Your task to perform on an android device: open wifi settings Image 0: 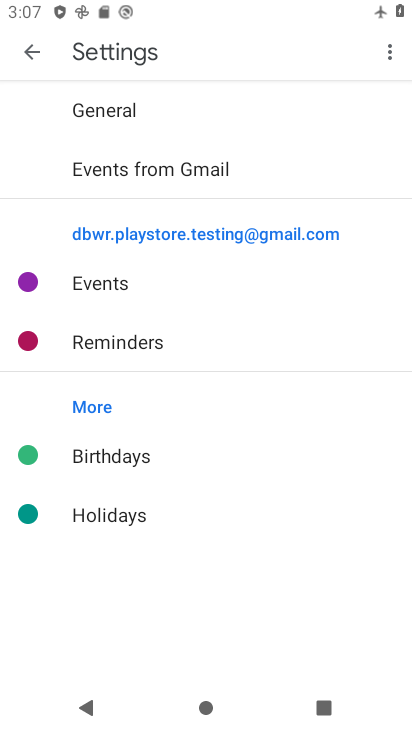
Step 0: press home button
Your task to perform on an android device: open wifi settings Image 1: 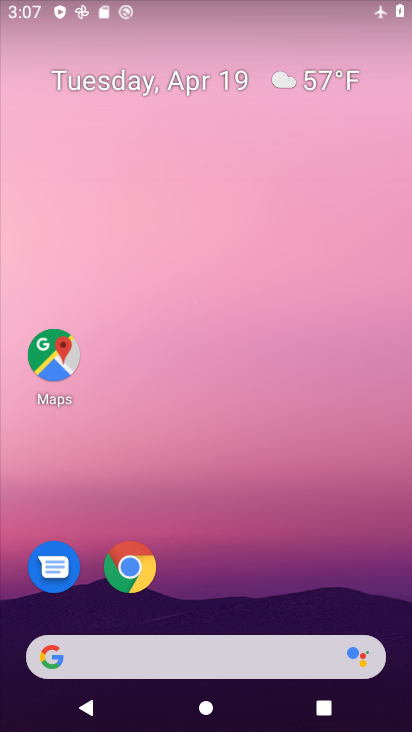
Step 1: drag from (348, 584) to (363, 77)
Your task to perform on an android device: open wifi settings Image 2: 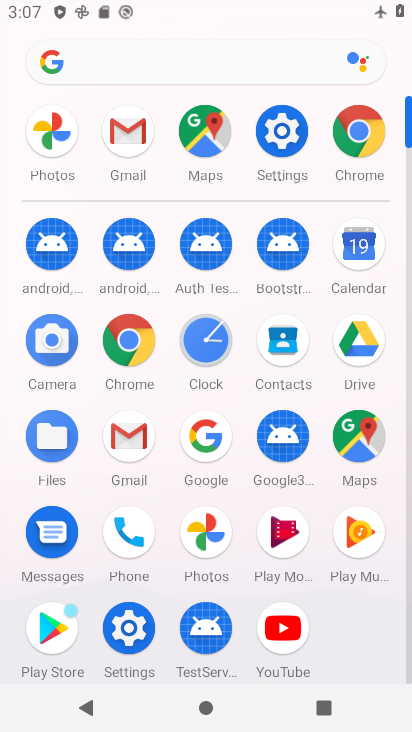
Step 2: click (286, 133)
Your task to perform on an android device: open wifi settings Image 3: 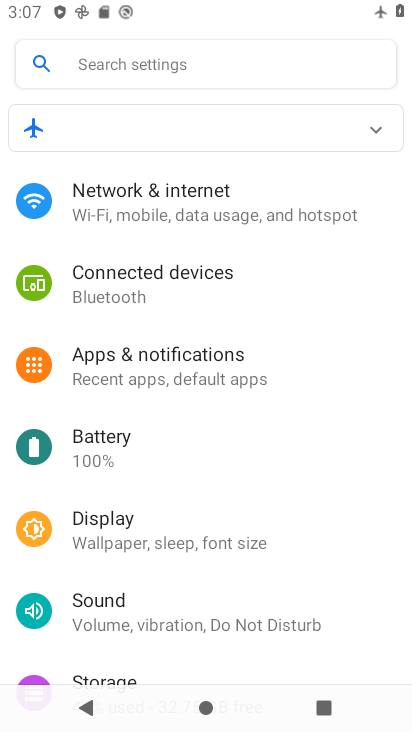
Step 3: click (178, 199)
Your task to perform on an android device: open wifi settings Image 4: 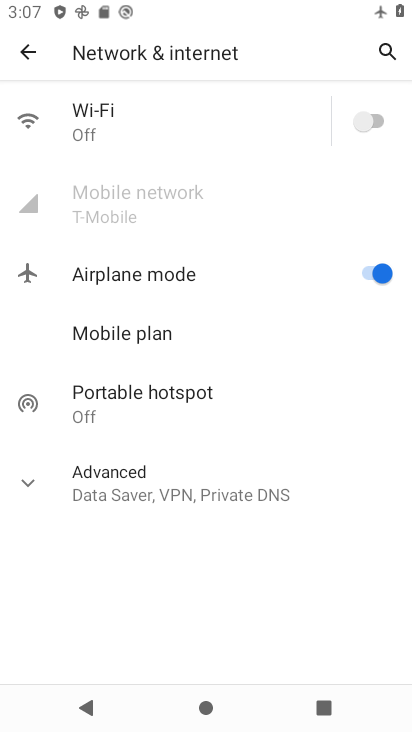
Step 4: click (122, 118)
Your task to perform on an android device: open wifi settings Image 5: 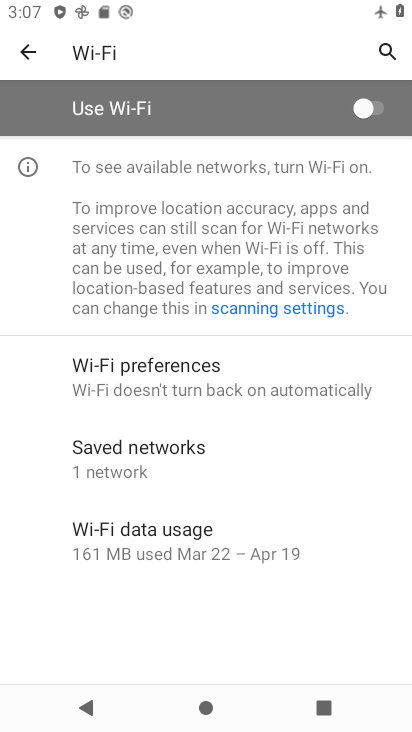
Step 5: task complete